Your task to perform on an android device: toggle location history Image 0: 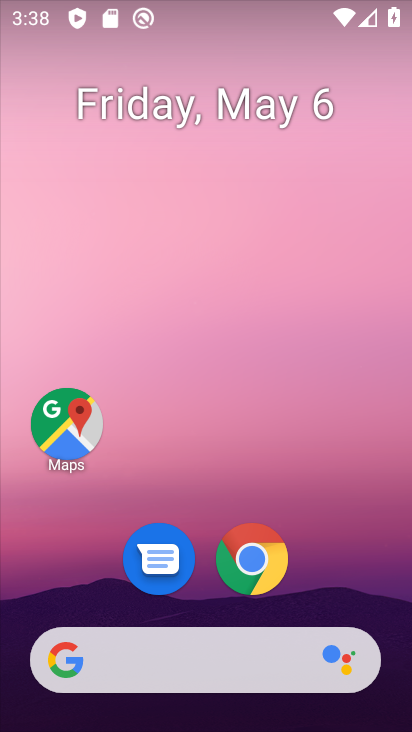
Step 0: drag from (203, 624) to (180, 155)
Your task to perform on an android device: toggle location history Image 1: 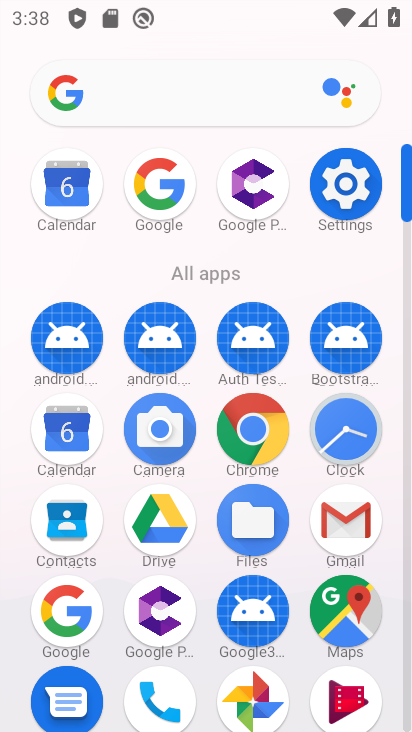
Step 1: click (358, 193)
Your task to perform on an android device: toggle location history Image 2: 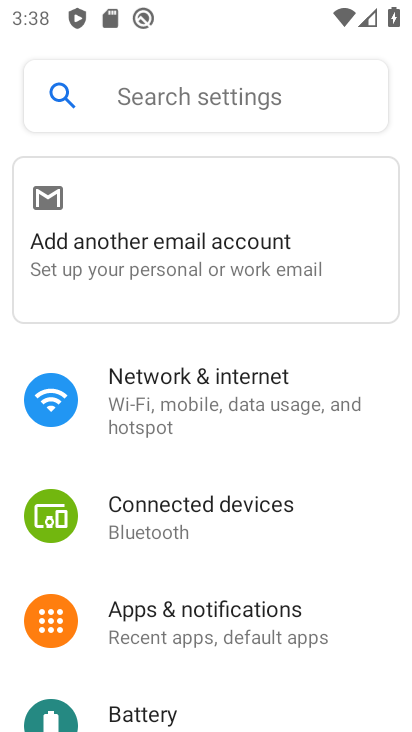
Step 2: drag from (211, 677) to (159, 328)
Your task to perform on an android device: toggle location history Image 3: 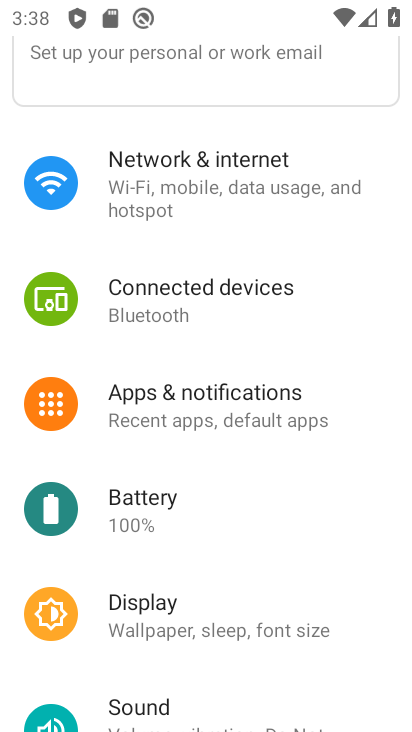
Step 3: drag from (168, 692) to (150, 310)
Your task to perform on an android device: toggle location history Image 4: 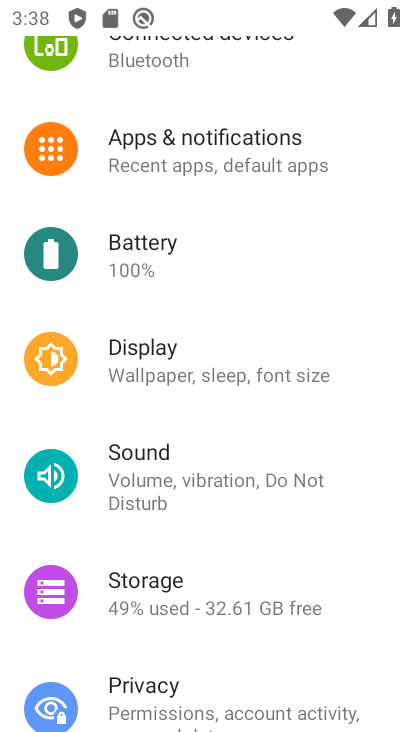
Step 4: drag from (179, 657) to (173, 283)
Your task to perform on an android device: toggle location history Image 5: 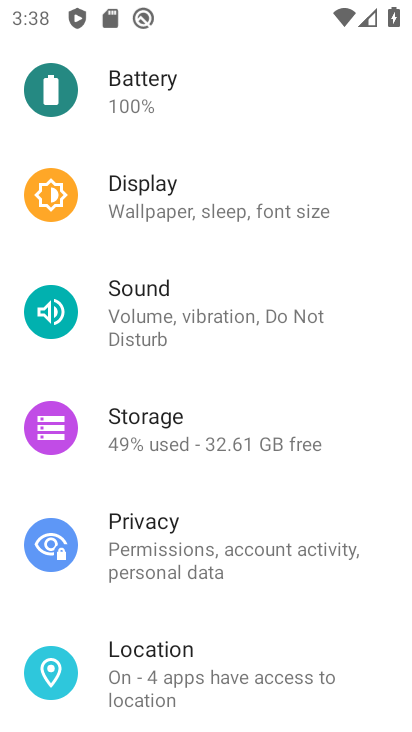
Step 5: click (139, 674)
Your task to perform on an android device: toggle location history Image 6: 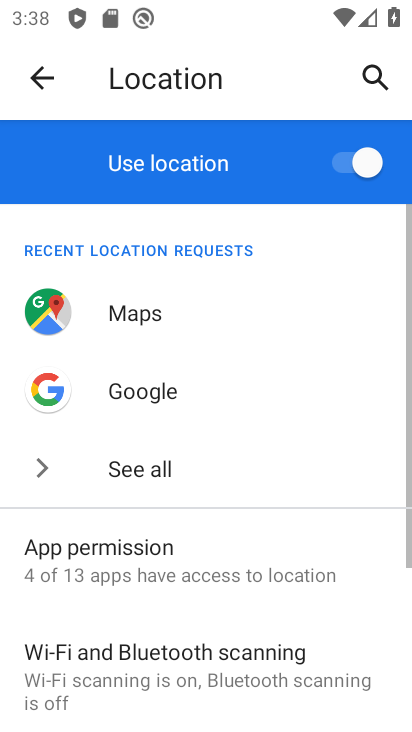
Step 6: click (126, 275)
Your task to perform on an android device: toggle location history Image 7: 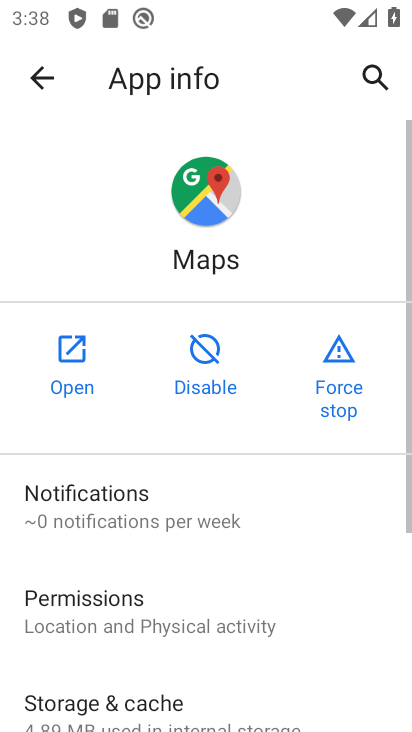
Step 7: click (45, 67)
Your task to perform on an android device: toggle location history Image 8: 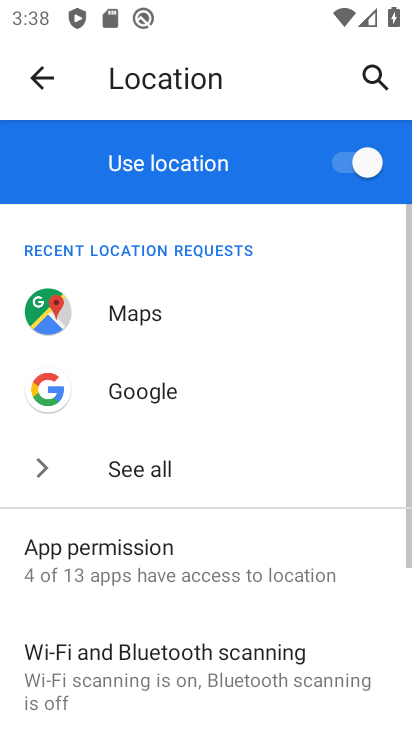
Step 8: drag from (195, 686) to (186, 328)
Your task to perform on an android device: toggle location history Image 9: 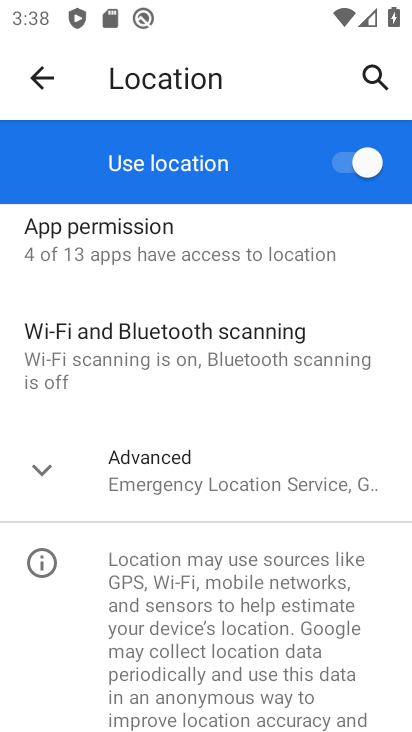
Step 9: drag from (197, 670) to (183, 323)
Your task to perform on an android device: toggle location history Image 10: 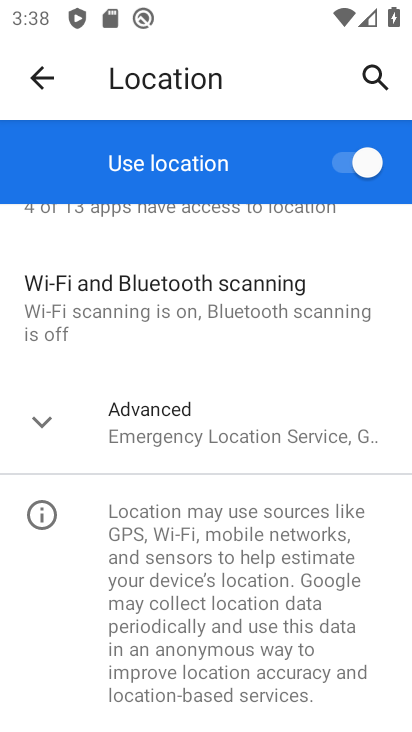
Step 10: click (175, 427)
Your task to perform on an android device: toggle location history Image 11: 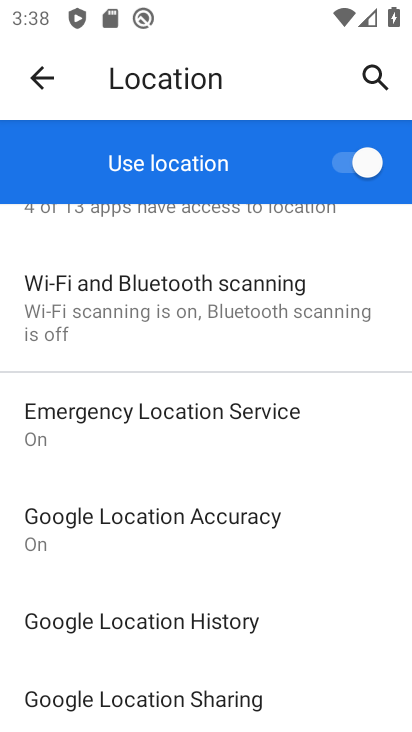
Step 11: drag from (179, 713) to (237, 351)
Your task to perform on an android device: toggle location history Image 12: 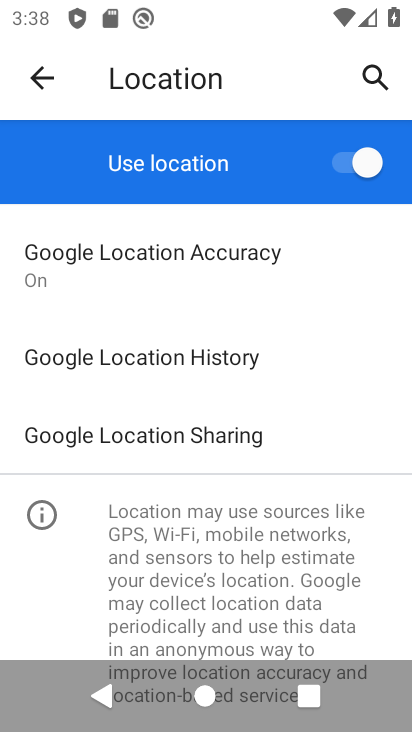
Step 12: click (186, 364)
Your task to perform on an android device: toggle location history Image 13: 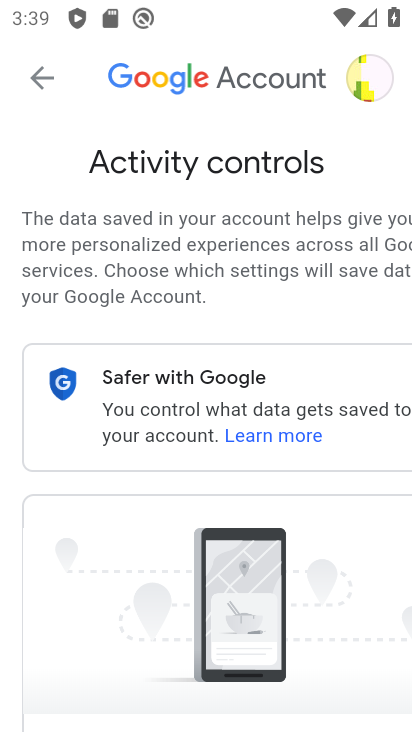
Step 13: drag from (324, 683) to (327, 257)
Your task to perform on an android device: toggle location history Image 14: 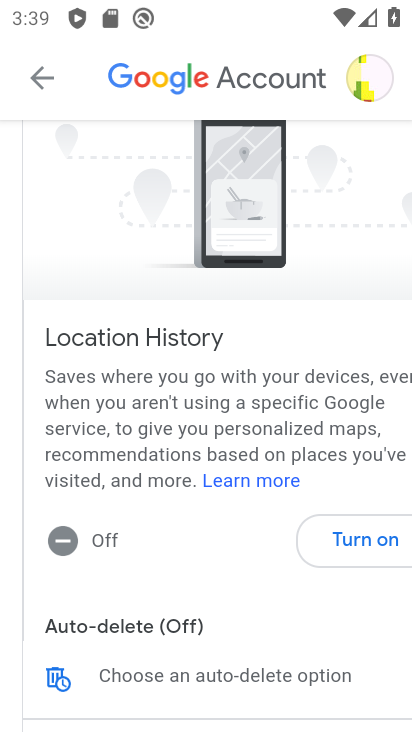
Step 14: click (346, 573)
Your task to perform on an android device: toggle location history Image 15: 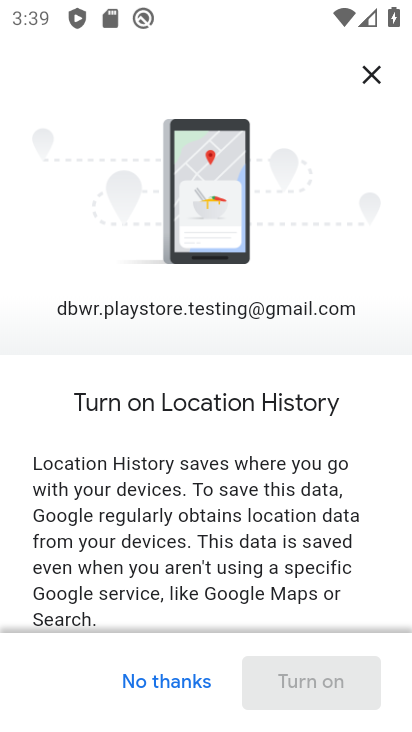
Step 15: drag from (315, 617) to (323, 284)
Your task to perform on an android device: toggle location history Image 16: 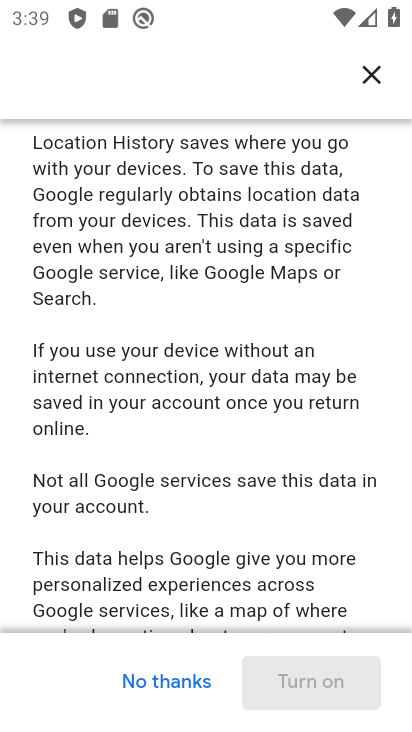
Step 16: drag from (314, 626) to (327, 271)
Your task to perform on an android device: toggle location history Image 17: 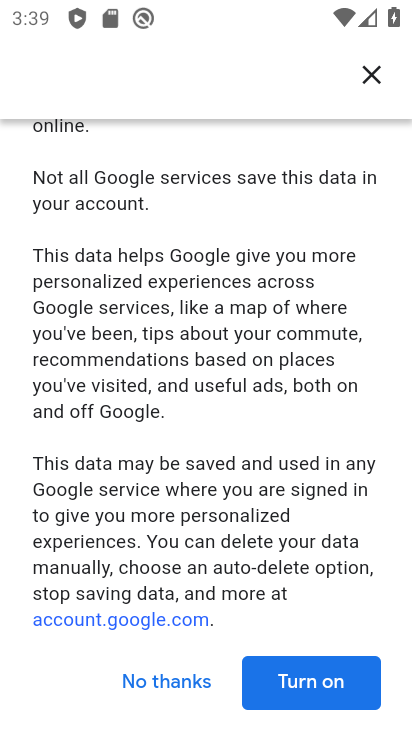
Step 17: click (321, 692)
Your task to perform on an android device: toggle location history Image 18: 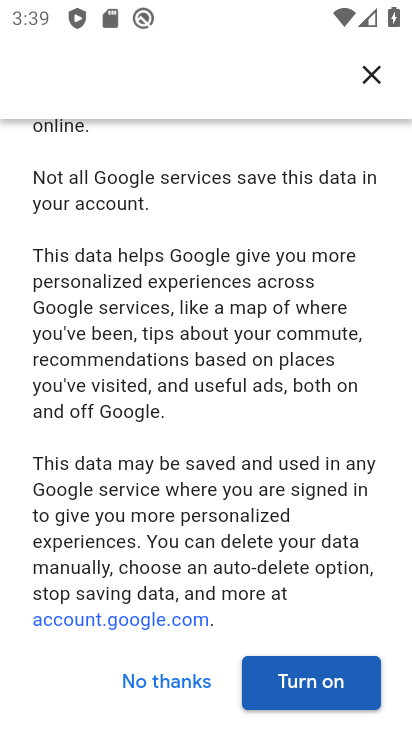
Step 18: click (317, 682)
Your task to perform on an android device: toggle location history Image 19: 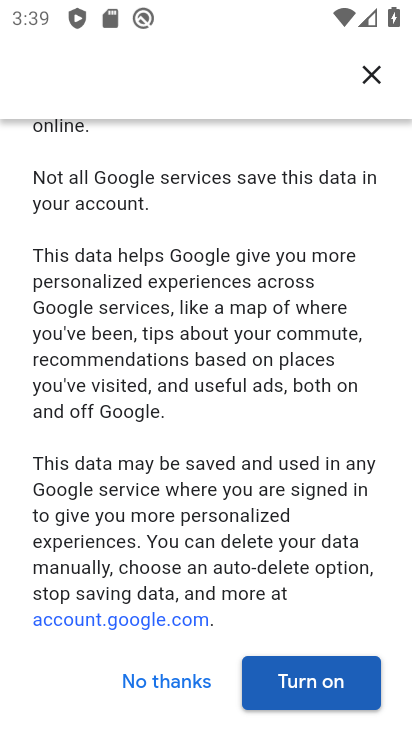
Step 19: click (317, 682)
Your task to perform on an android device: toggle location history Image 20: 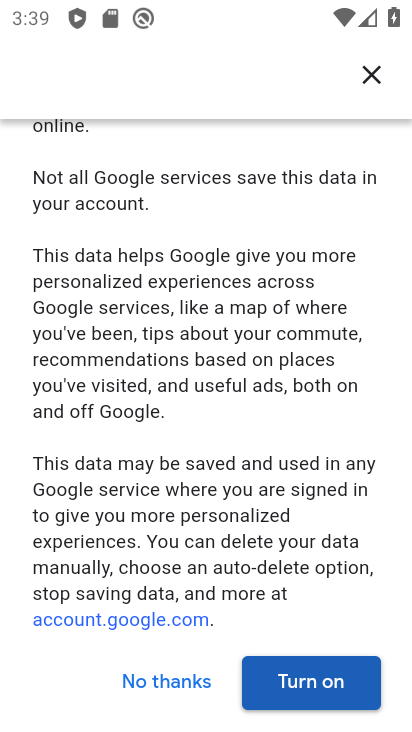
Step 20: click (290, 683)
Your task to perform on an android device: toggle location history Image 21: 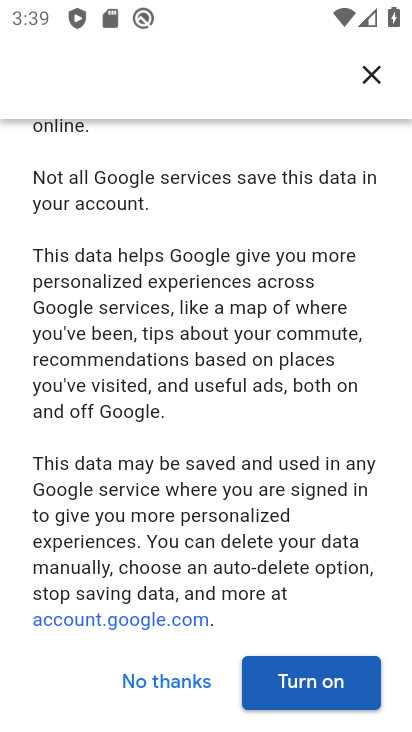
Step 21: click (314, 692)
Your task to perform on an android device: toggle location history Image 22: 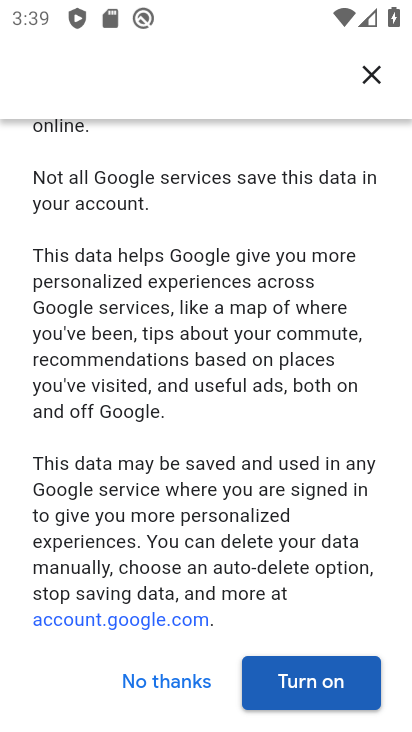
Step 22: click (314, 692)
Your task to perform on an android device: toggle location history Image 23: 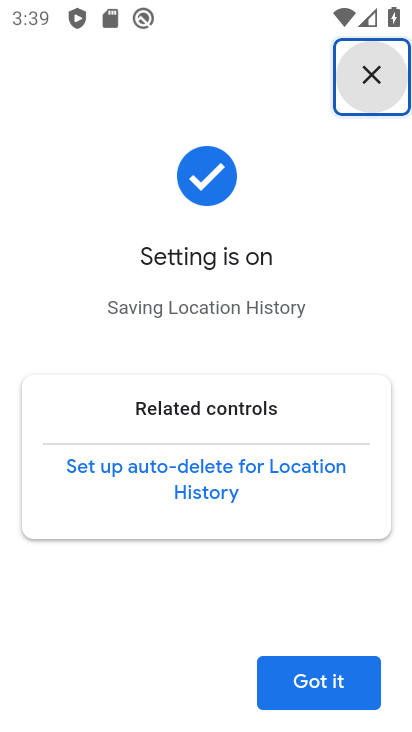
Step 23: task complete